Your task to perform on an android device: Search for sushi restaurants on Maps Image 0: 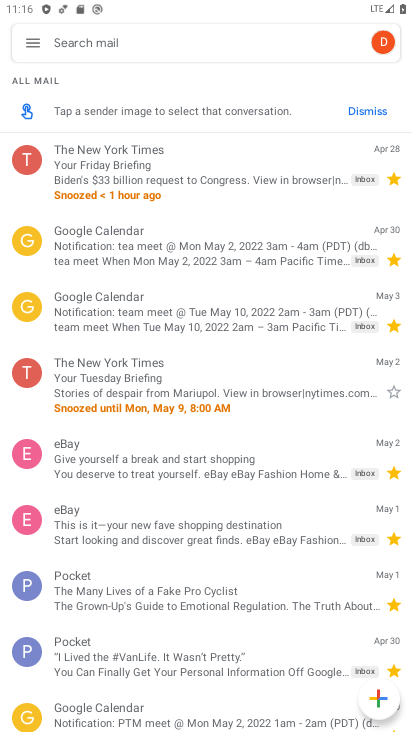
Step 0: press home button
Your task to perform on an android device: Search for sushi restaurants on Maps Image 1: 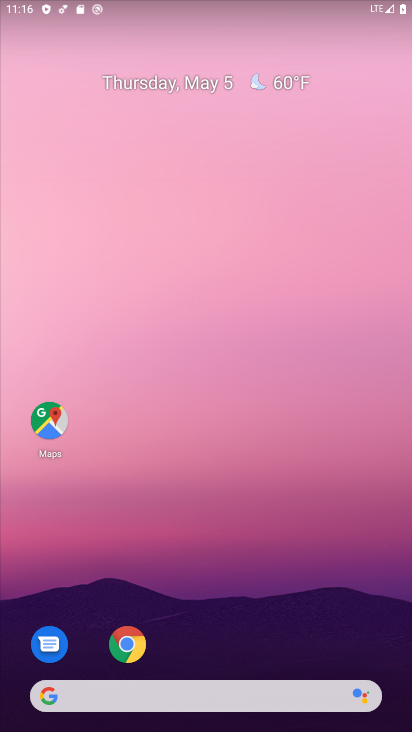
Step 1: drag from (376, 627) to (366, 169)
Your task to perform on an android device: Search for sushi restaurants on Maps Image 2: 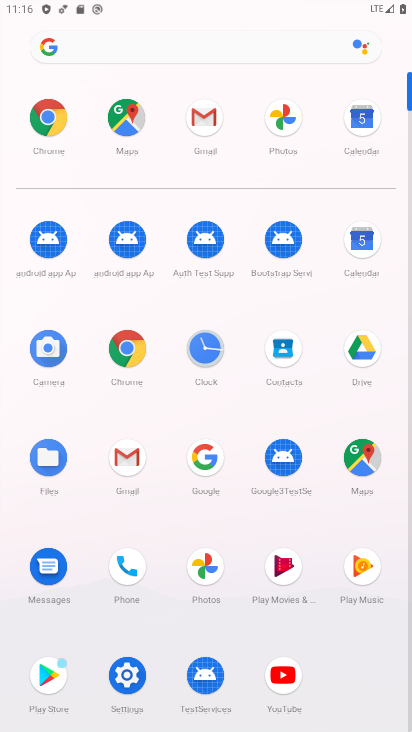
Step 2: click (351, 470)
Your task to perform on an android device: Search for sushi restaurants on Maps Image 3: 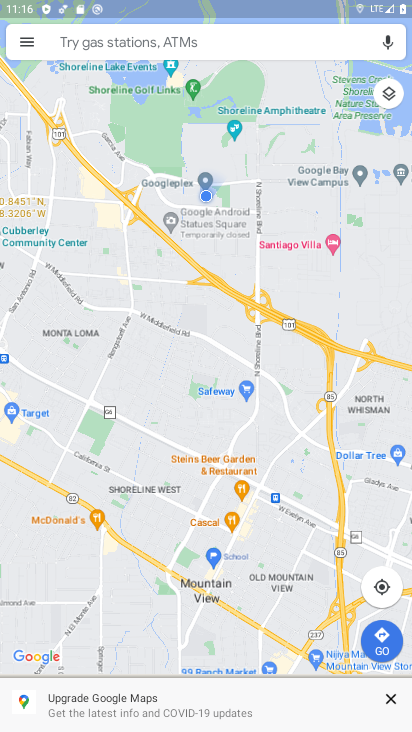
Step 3: click (141, 43)
Your task to perform on an android device: Search for sushi restaurants on Maps Image 4: 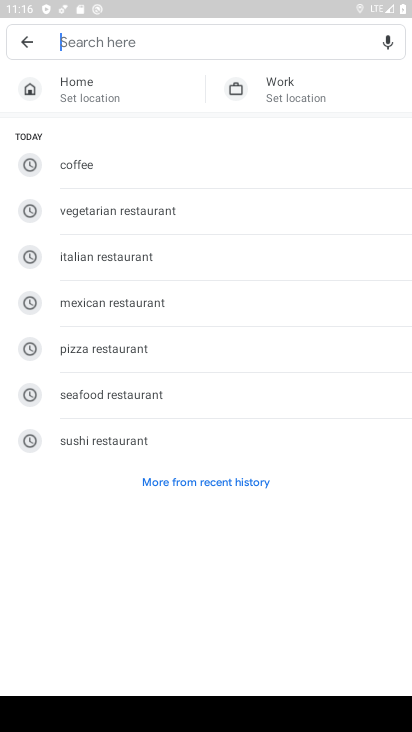
Step 4: type "sushi restaurants"
Your task to perform on an android device: Search for sushi restaurants on Maps Image 5: 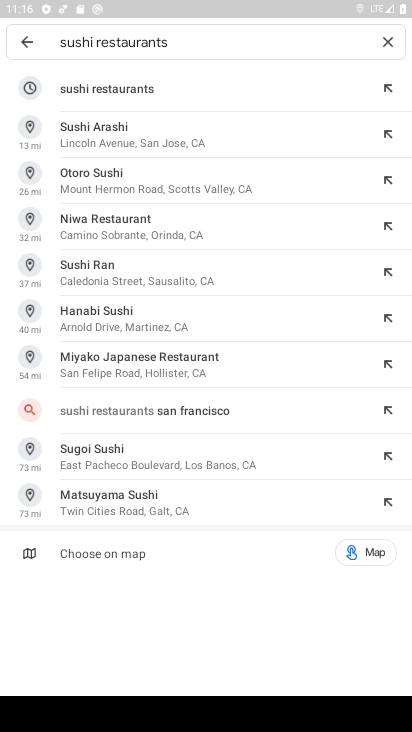
Step 5: click (127, 96)
Your task to perform on an android device: Search for sushi restaurants on Maps Image 6: 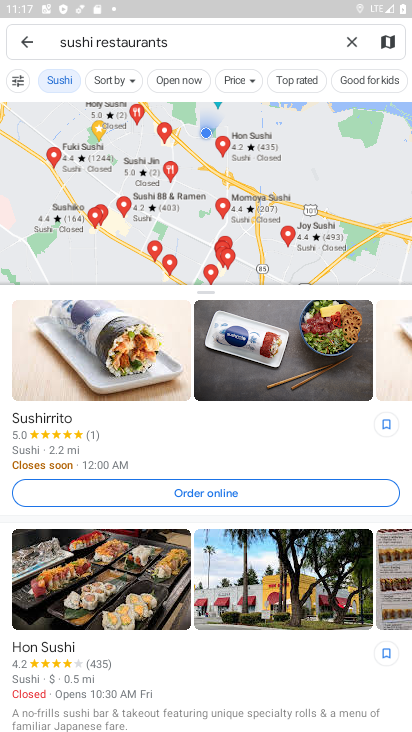
Step 6: task complete